Your task to perform on an android device: Go to Yahoo.com Image 0: 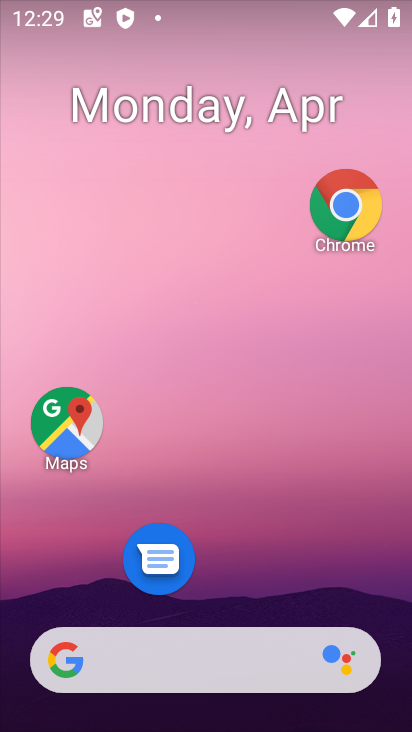
Step 0: click (376, 229)
Your task to perform on an android device: Go to Yahoo.com Image 1: 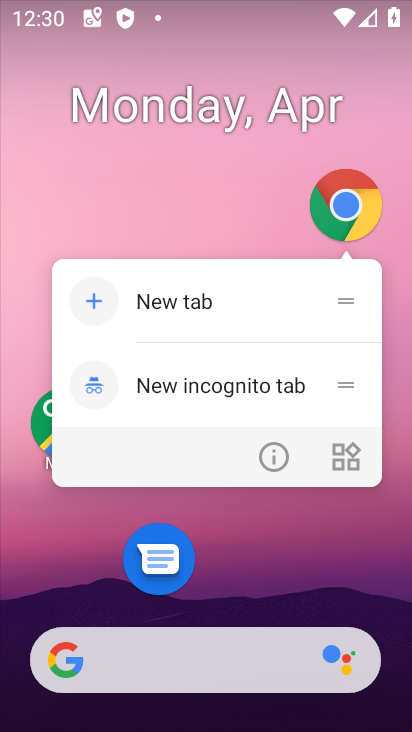
Step 1: click (284, 459)
Your task to perform on an android device: Go to Yahoo.com Image 2: 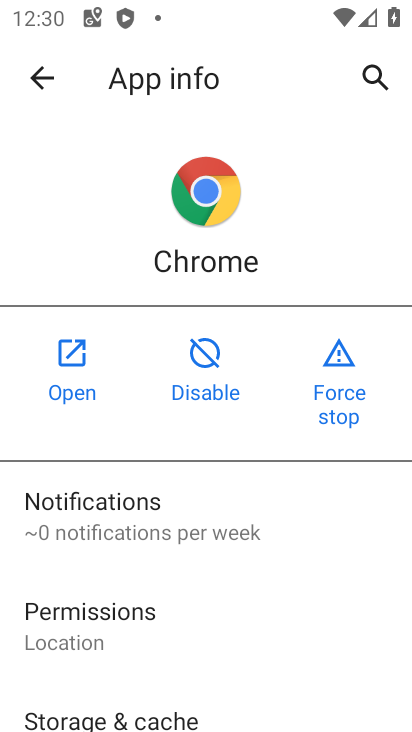
Step 2: click (88, 365)
Your task to perform on an android device: Go to Yahoo.com Image 3: 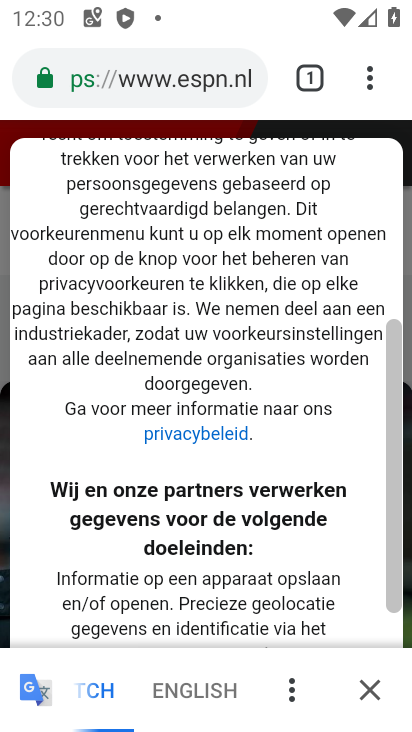
Step 3: click (319, 73)
Your task to perform on an android device: Go to Yahoo.com Image 4: 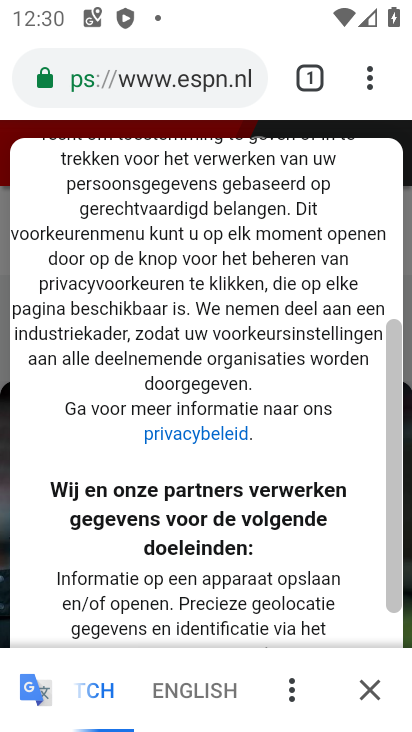
Step 4: click (309, 78)
Your task to perform on an android device: Go to Yahoo.com Image 5: 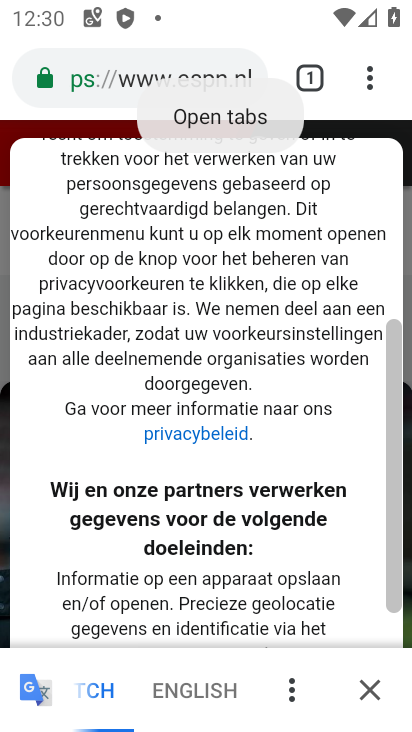
Step 5: click (309, 78)
Your task to perform on an android device: Go to Yahoo.com Image 6: 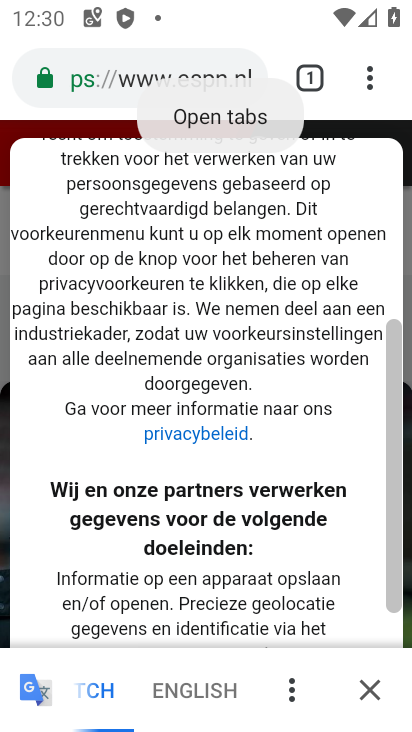
Step 6: click (309, 73)
Your task to perform on an android device: Go to Yahoo.com Image 7: 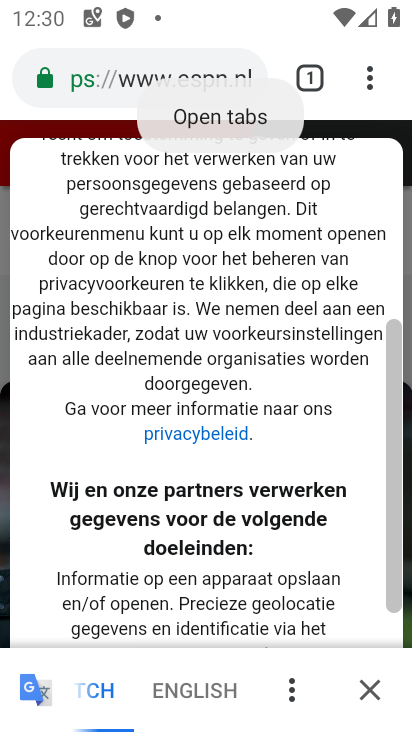
Step 7: click (374, 81)
Your task to perform on an android device: Go to Yahoo.com Image 8: 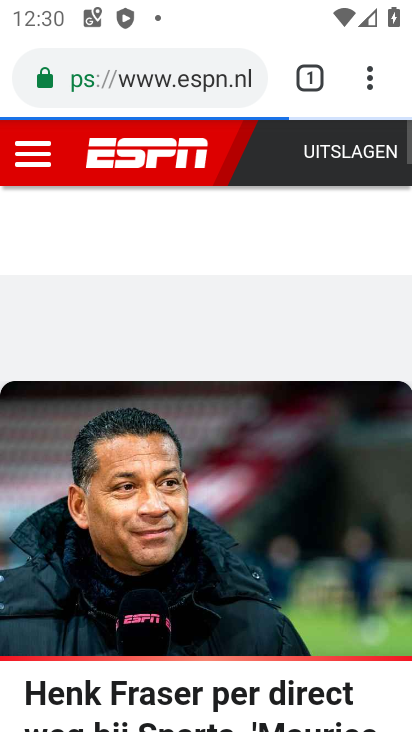
Step 8: click (378, 76)
Your task to perform on an android device: Go to Yahoo.com Image 9: 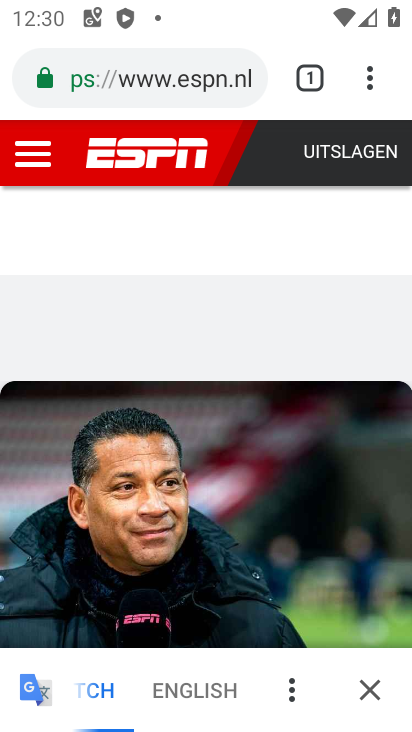
Step 9: click (364, 88)
Your task to perform on an android device: Go to Yahoo.com Image 10: 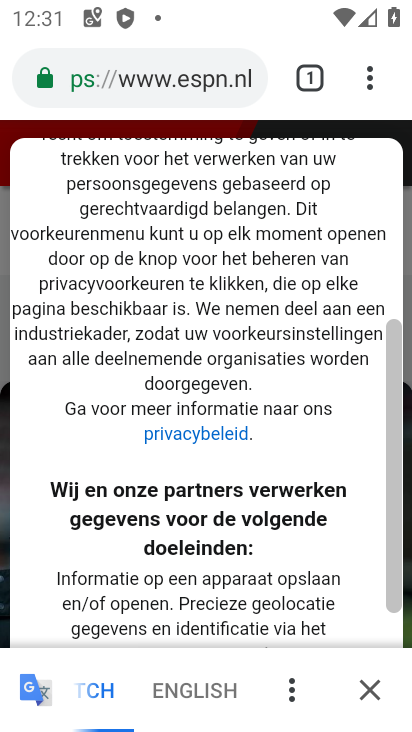
Step 10: click (371, 80)
Your task to perform on an android device: Go to Yahoo.com Image 11: 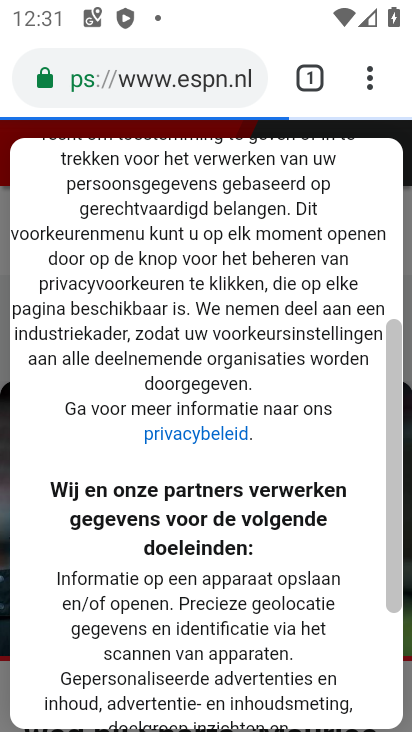
Step 11: click (364, 79)
Your task to perform on an android device: Go to Yahoo.com Image 12: 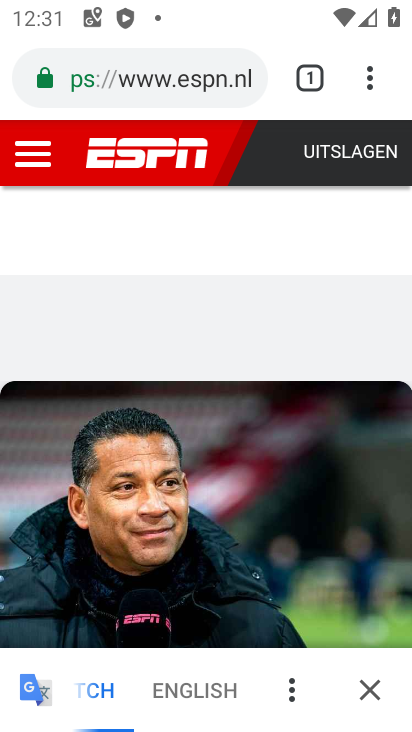
Step 12: click (378, 84)
Your task to perform on an android device: Go to Yahoo.com Image 13: 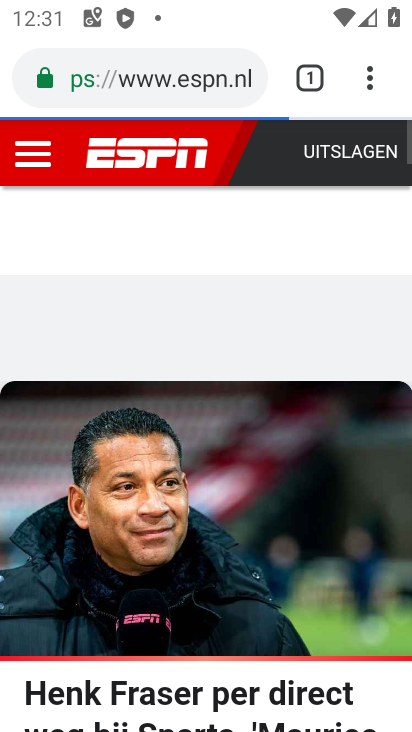
Step 13: click (366, 80)
Your task to perform on an android device: Go to Yahoo.com Image 14: 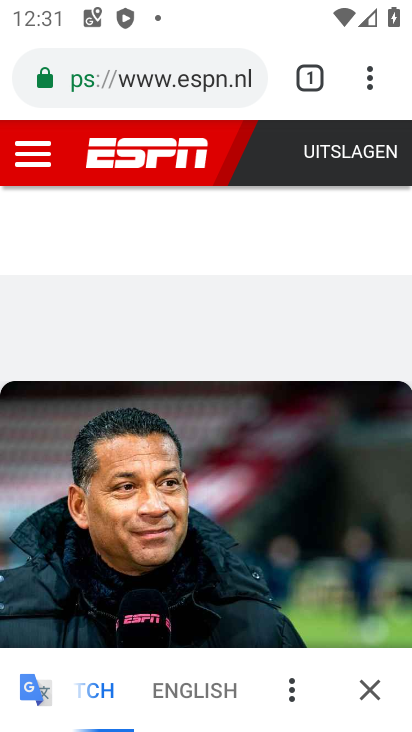
Step 14: click (366, 79)
Your task to perform on an android device: Go to Yahoo.com Image 15: 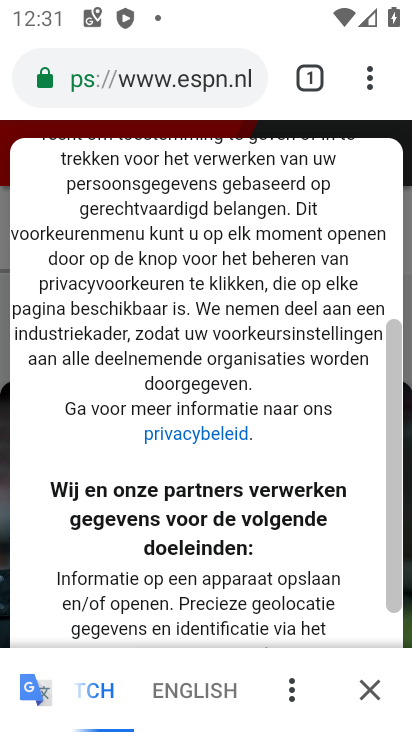
Step 15: click (370, 82)
Your task to perform on an android device: Go to Yahoo.com Image 16: 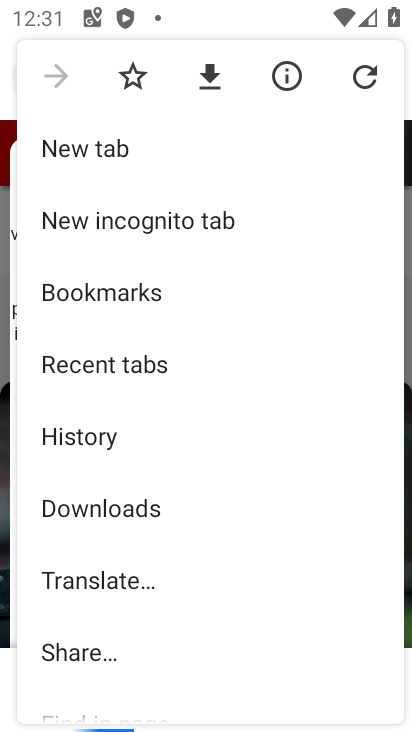
Step 16: click (119, 157)
Your task to perform on an android device: Go to Yahoo.com Image 17: 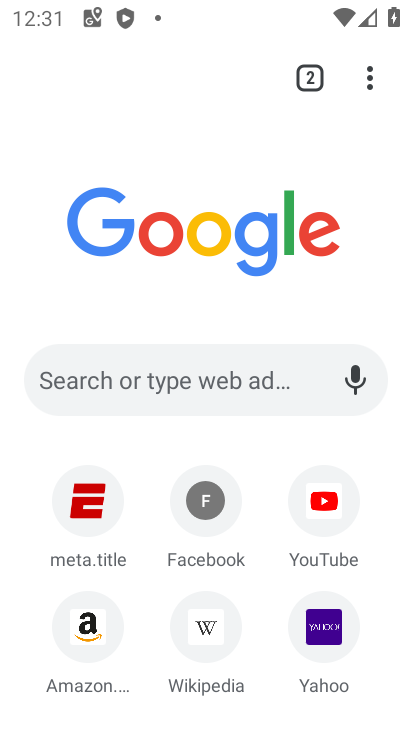
Step 17: click (329, 638)
Your task to perform on an android device: Go to Yahoo.com Image 18: 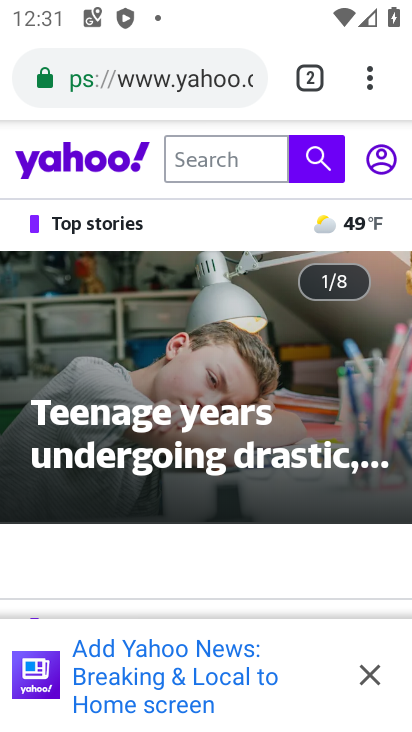
Step 18: task complete